Your task to perform on an android device: show emergency info Image 0: 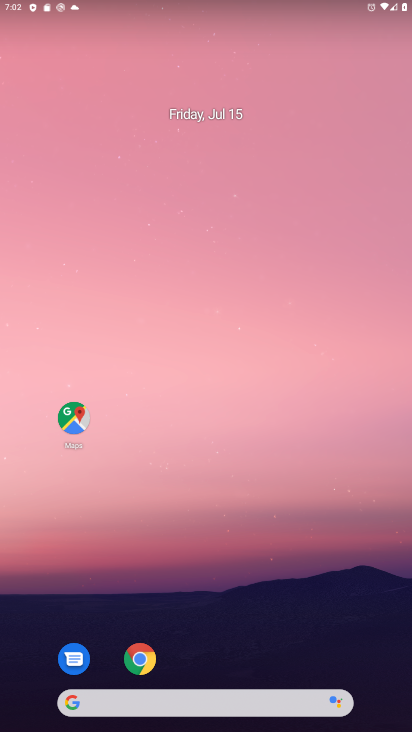
Step 0: drag from (385, 663) to (305, 145)
Your task to perform on an android device: show emergency info Image 1: 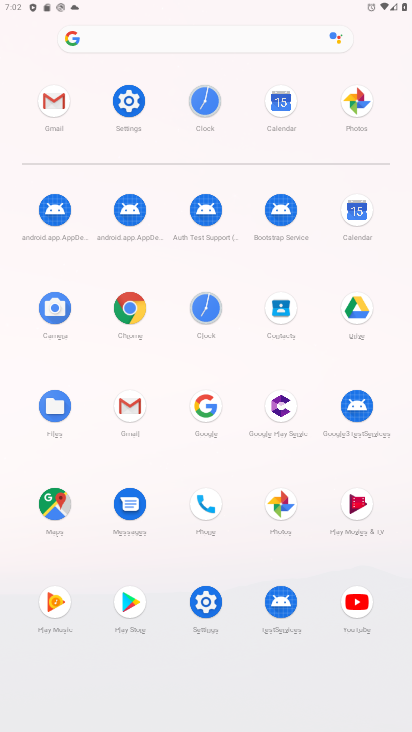
Step 1: click (206, 602)
Your task to perform on an android device: show emergency info Image 2: 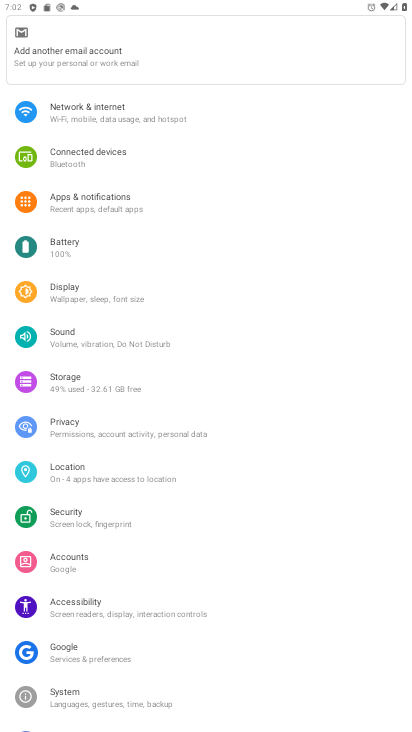
Step 2: drag from (279, 674) to (260, 312)
Your task to perform on an android device: show emergency info Image 3: 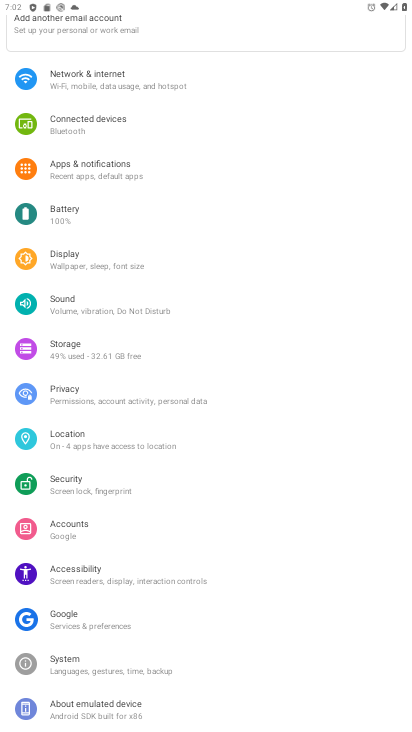
Step 3: click (82, 706)
Your task to perform on an android device: show emergency info Image 4: 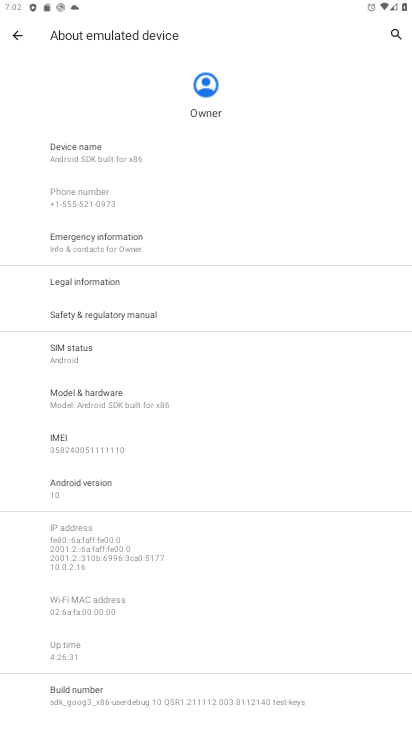
Step 4: click (98, 242)
Your task to perform on an android device: show emergency info Image 5: 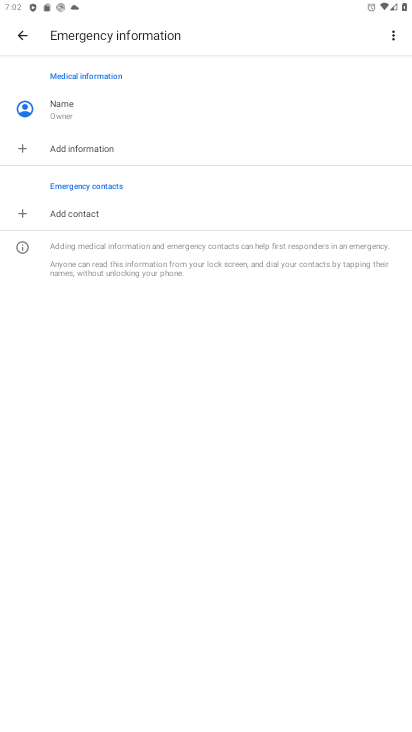
Step 5: task complete